Your task to perform on an android device: Open wifi settings Image 0: 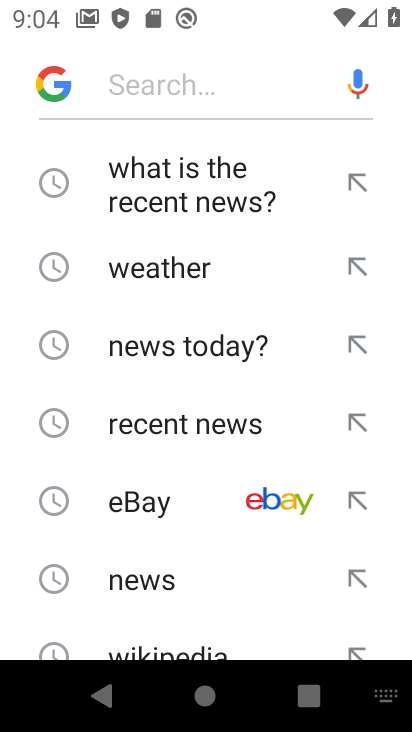
Step 0: press home button
Your task to perform on an android device: Open wifi settings Image 1: 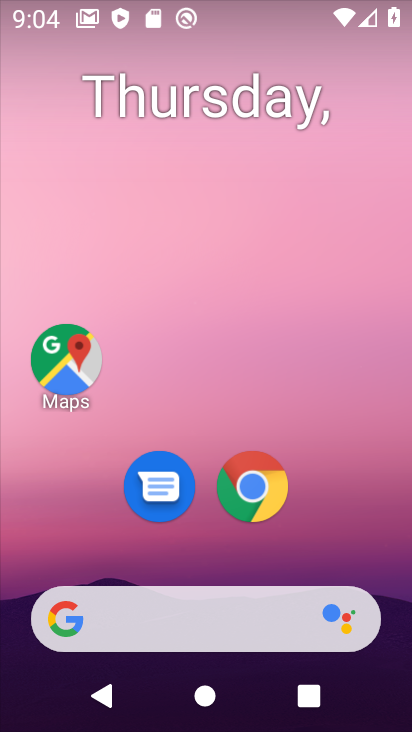
Step 1: drag from (239, 394) to (276, 79)
Your task to perform on an android device: Open wifi settings Image 2: 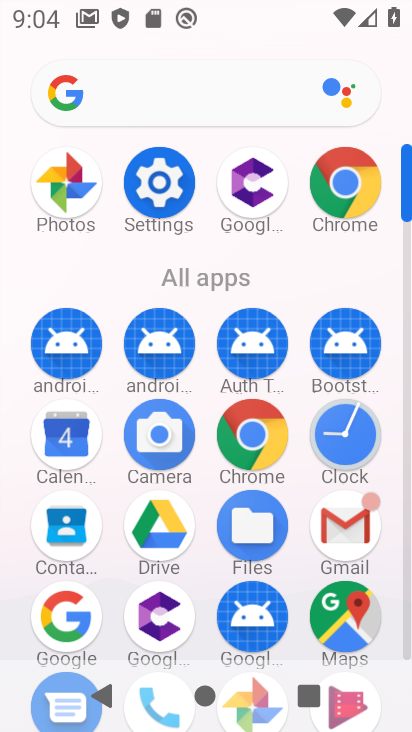
Step 2: click (159, 166)
Your task to perform on an android device: Open wifi settings Image 3: 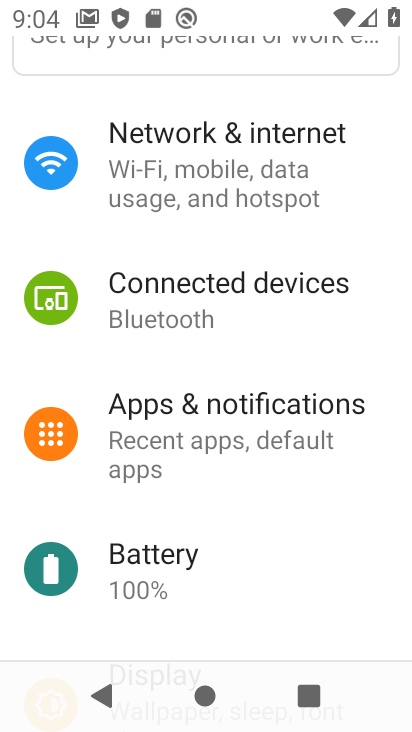
Step 3: click (219, 141)
Your task to perform on an android device: Open wifi settings Image 4: 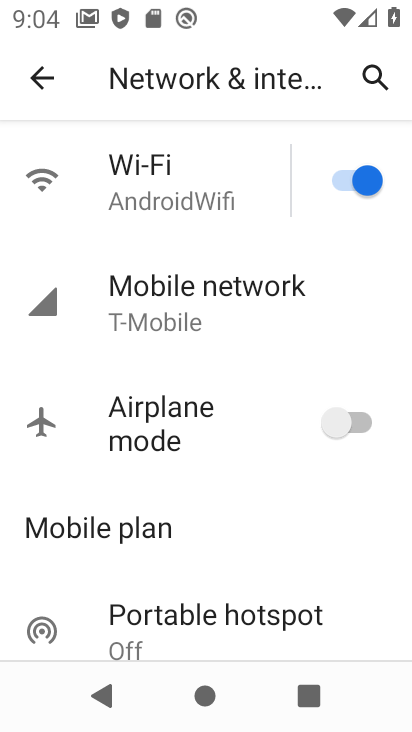
Step 4: task complete